Your task to perform on an android device: Go to Google maps Image 0: 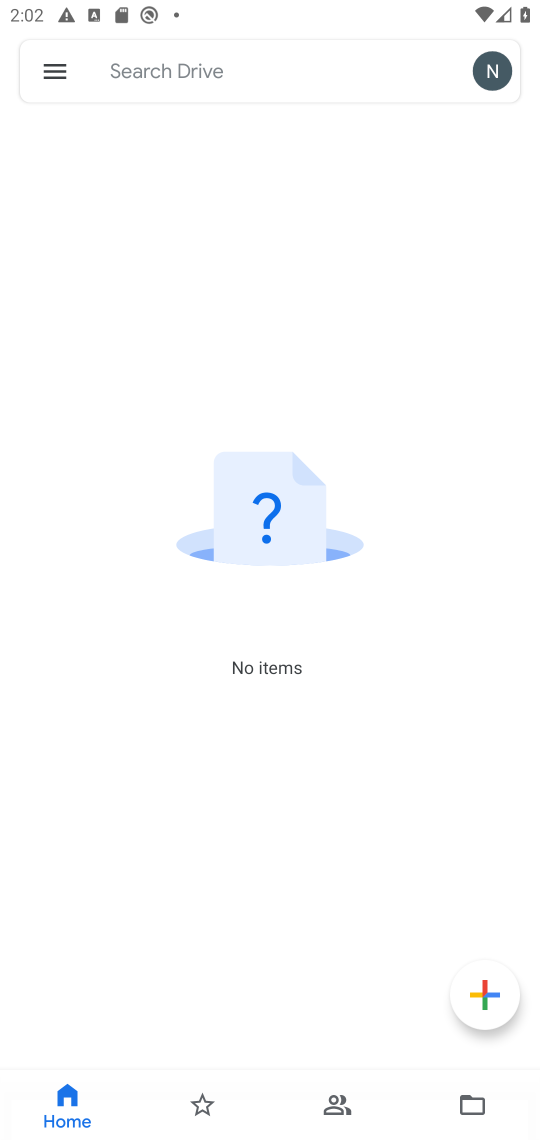
Step 0: press home button
Your task to perform on an android device: Go to Google maps Image 1: 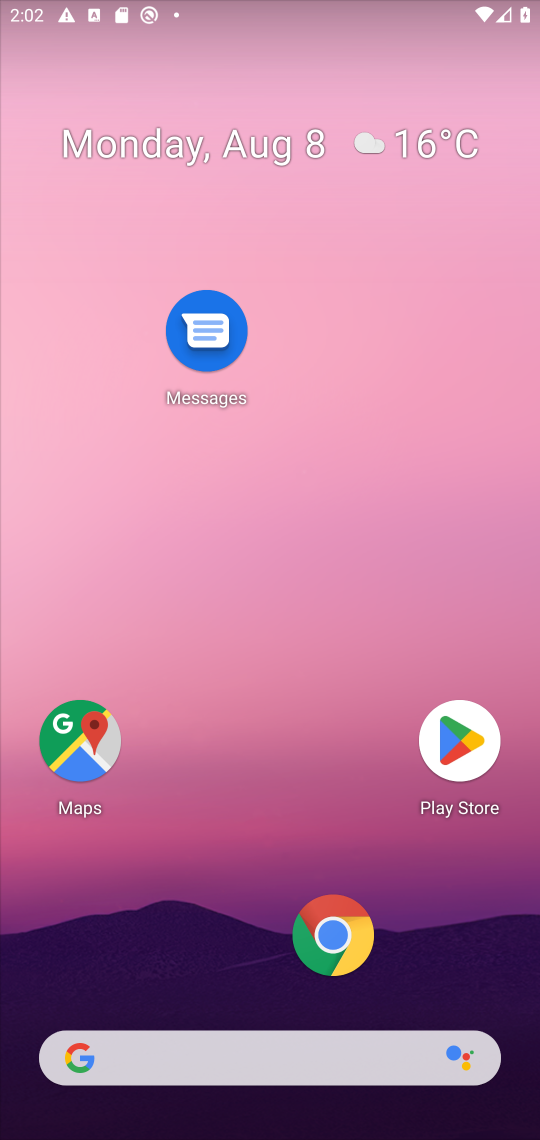
Step 1: drag from (307, 1061) to (271, 23)
Your task to perform on an android device: Go to Google maps Image 2: 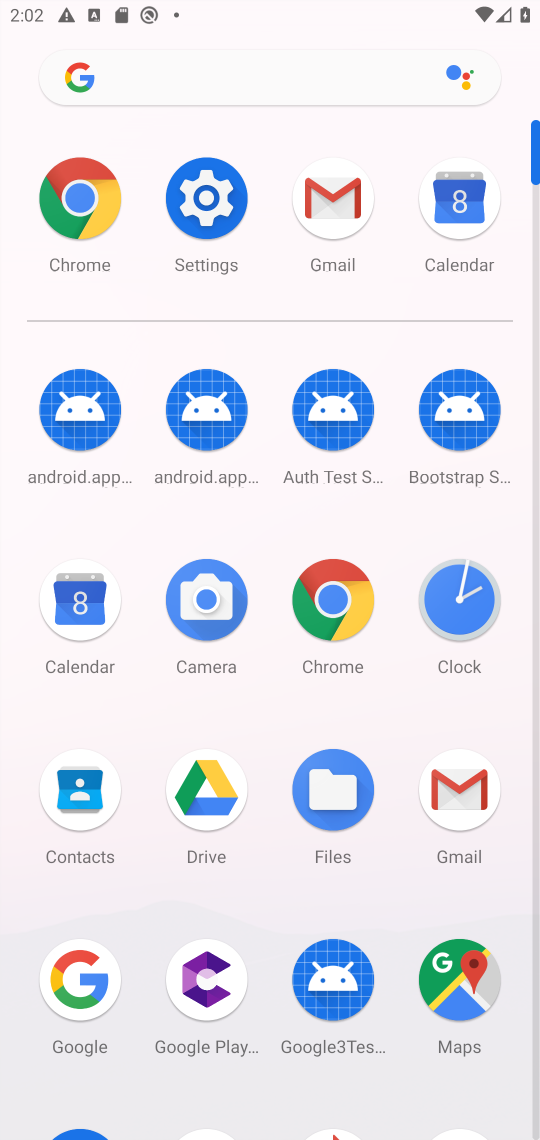
Step 2: click (473, 956)
Your task to perform on an android device: Go to Google maps Image 3: 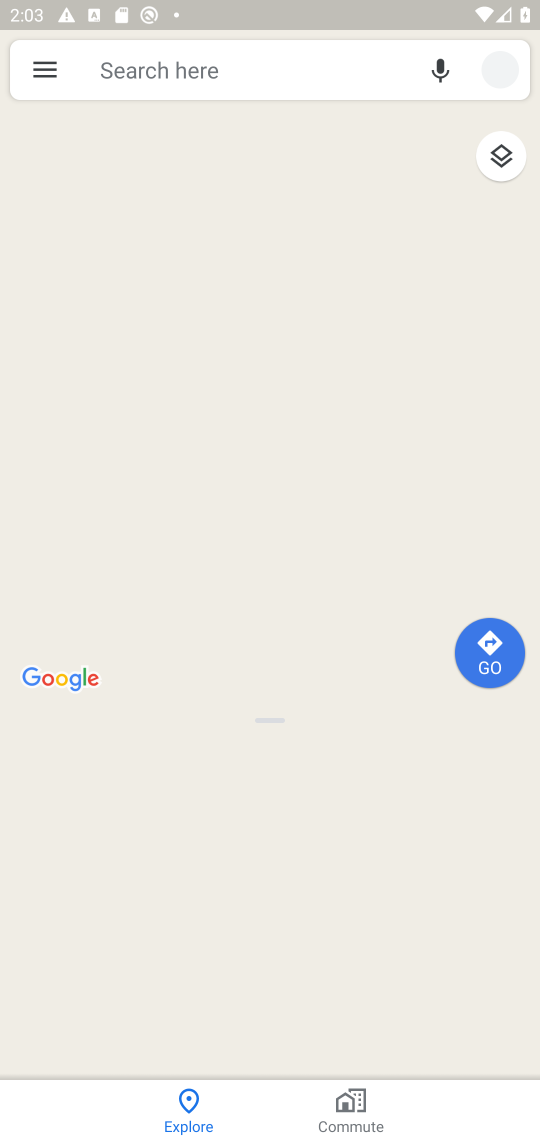
Step 3: task complete